Your task to perform on an android device: check android version Image 0: 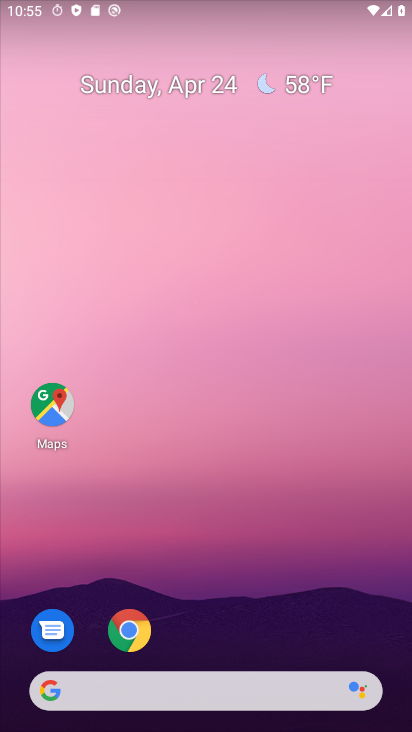
Step 0: drag from (256, 638) to (283, 0)
Your task to perform on an android device: check android version Image 1: 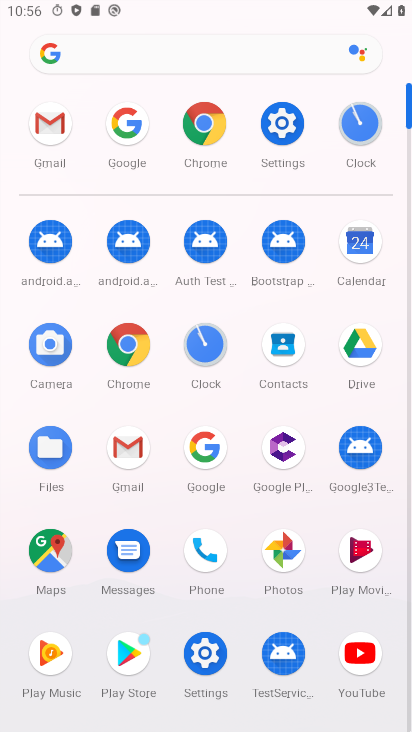
Step 1: click (294, 155)
Your task to perform on an android device: check android version Image 2: 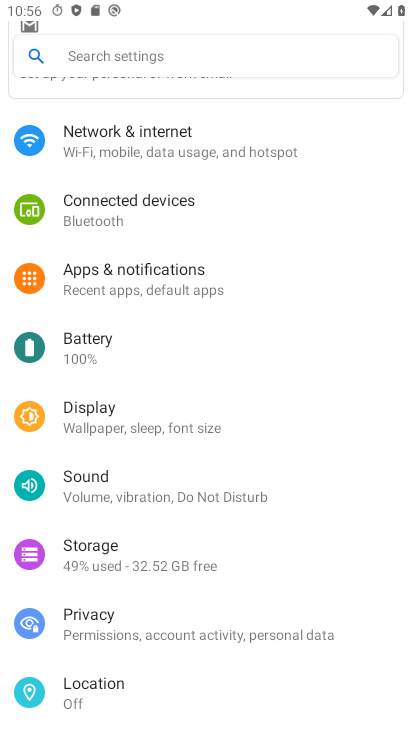
Step 2: drag from (188, 573) to (168, 8)
Your task to perform on an android device: check android version Image 3: 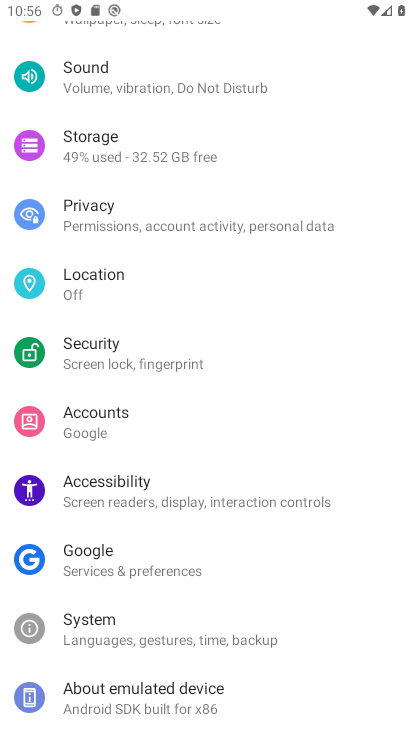
Step 3: drag from (133, 185) to (33, 39)
Your task to perform on an android device: check android version Image 4: 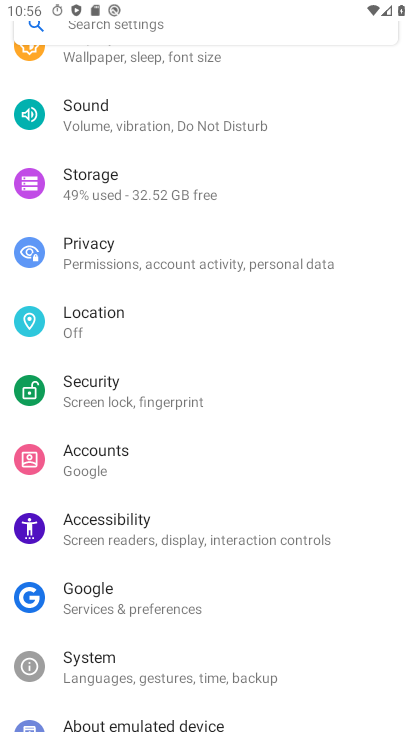
Step 4: drag from (228, 619) to (246, 185)
Your task to perform on an android device: check android version Image 5: 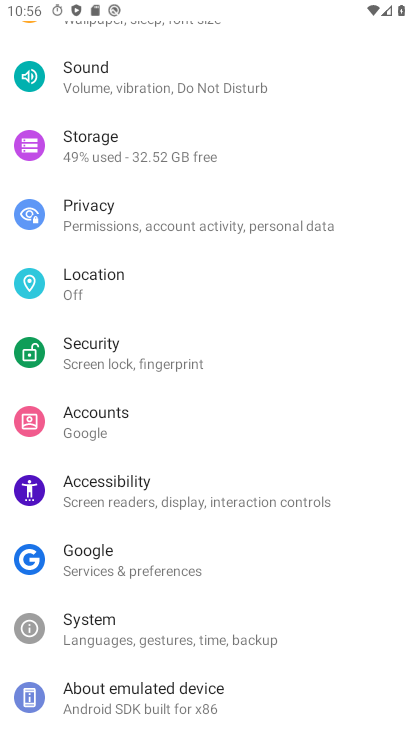
Step 5: click (262, 695)
Your task to perform on an android device: check android version Image 6: 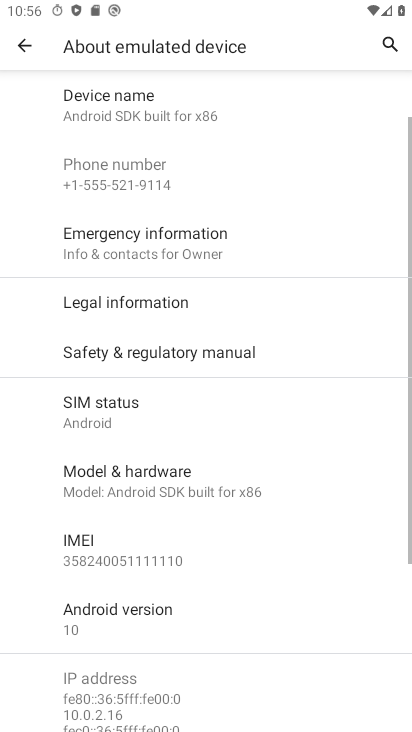
Step 6: drag from (272, 629) to (369, 249)
Your task to perform on an android device: check android version Image 7: 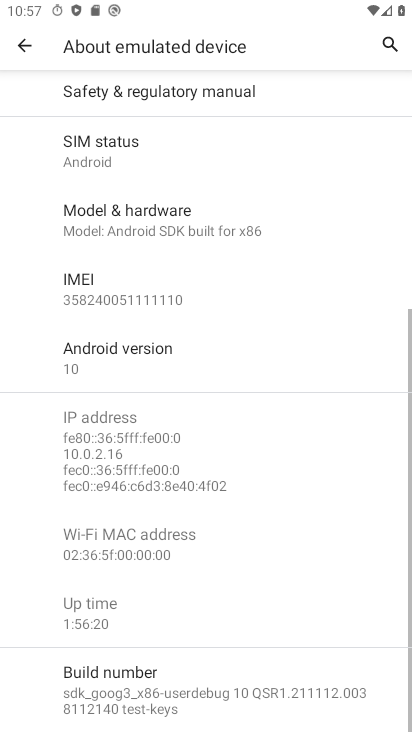
Step 7: click (221, 365)
Your task to perform on an android device: check android version Image 8: 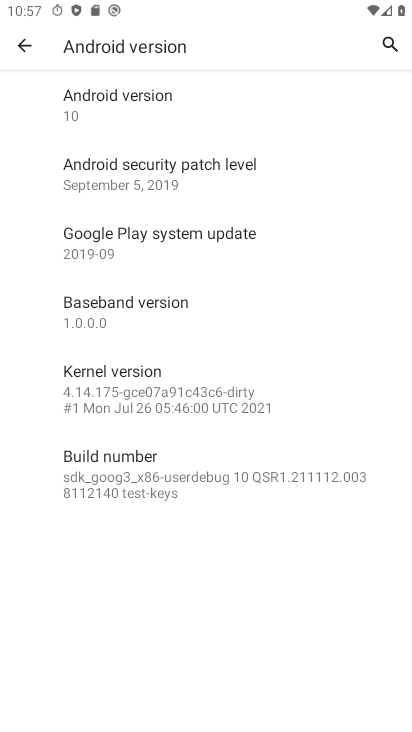
Step 8: task complete